Your task to perform on an android device: turn on translation in the chrome app Image 0: 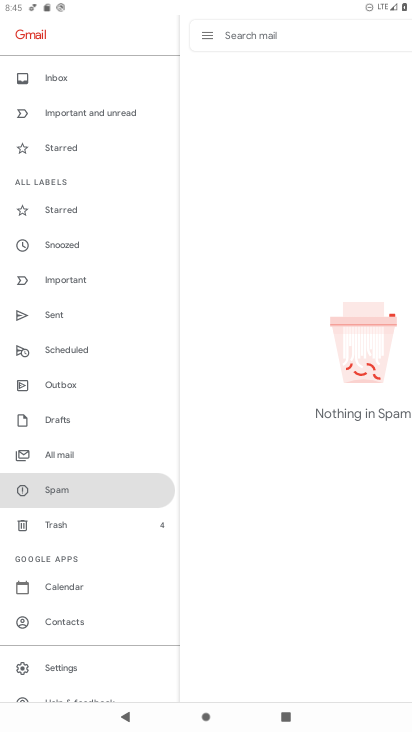
Step 0: press home button
Your task to perform on an android device: turn on translation in the chrome app Image 1: 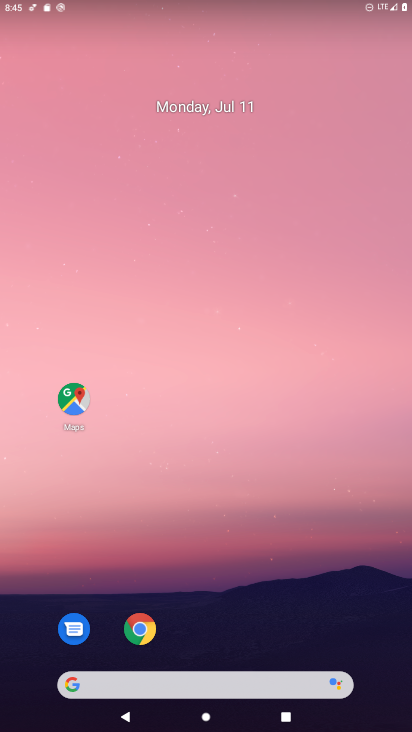
Step 1: click (141, 631)
Your task to perform on an android device: turn on translation in the chrome app Image 2: 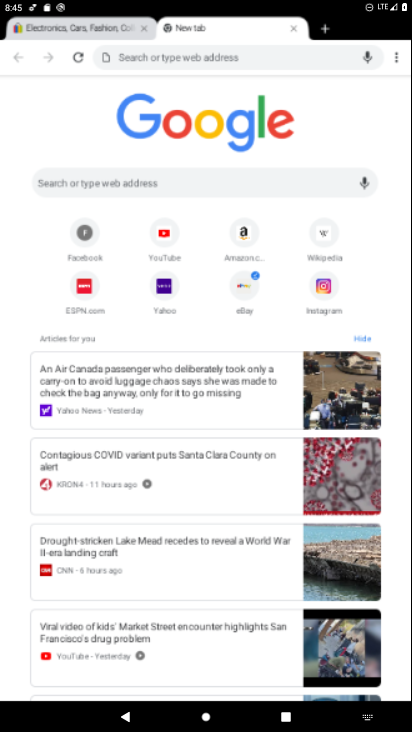
Step 2: click (394, 62)
Your task to perform on an android device: turn on translation in the chrome app Image 3: 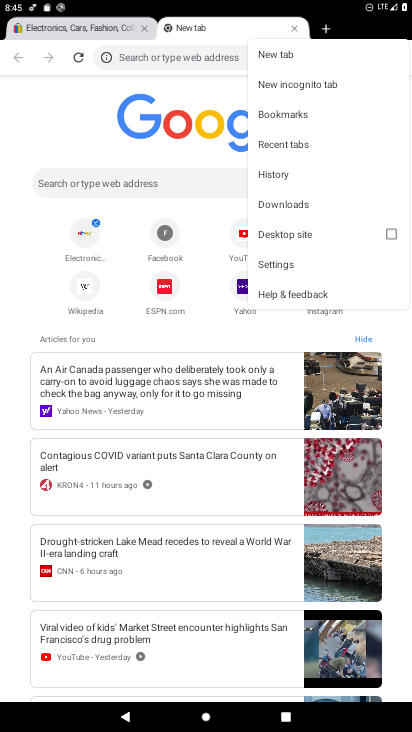
Step 3: click (276, 258)
Your task to perform on an android device: turn on translation in the chrome app Image 4: 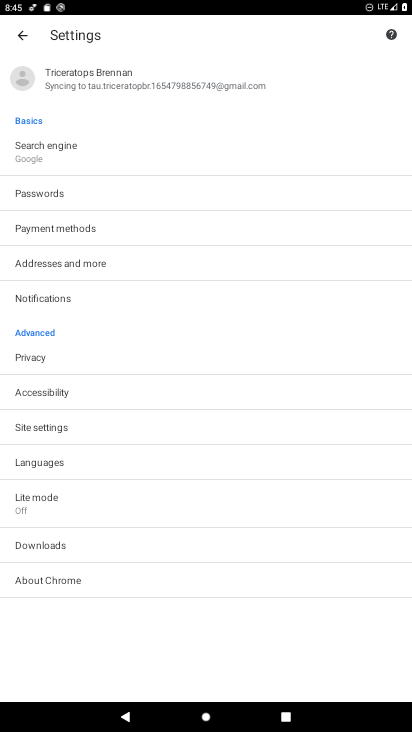
Step 4: click (108, 467)
Your task to perform on an android device: turn on translation in the chrome app Image 5: 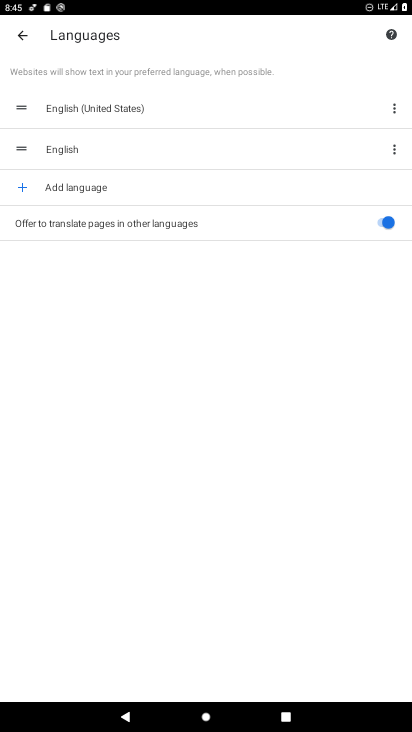
Step 5: task complete